Your task to perform on an android device: change the clock style Image 0: 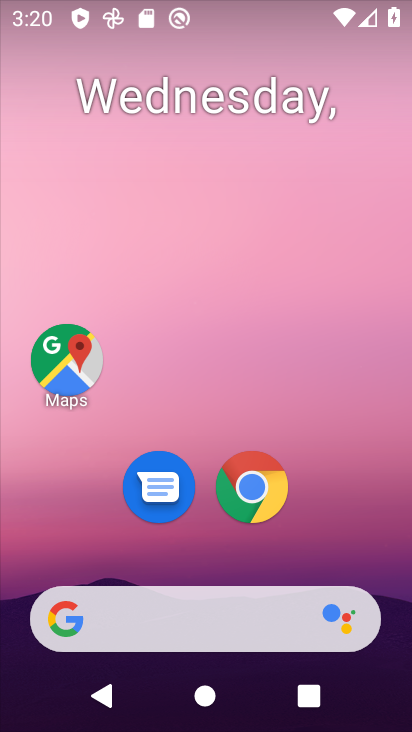
Step 0: drag from (347, 545) to (354, 246)
Your task to perform on an android device: change the clock style Image 1: 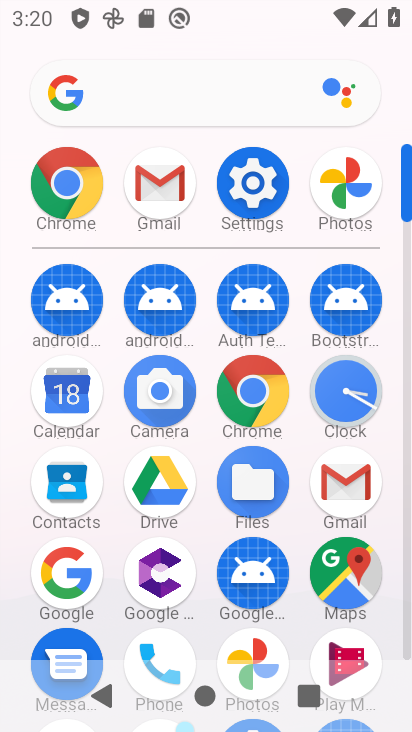
Step 1: click (353, 395)
Your task to perform on an android device: change the clock style Image 2: 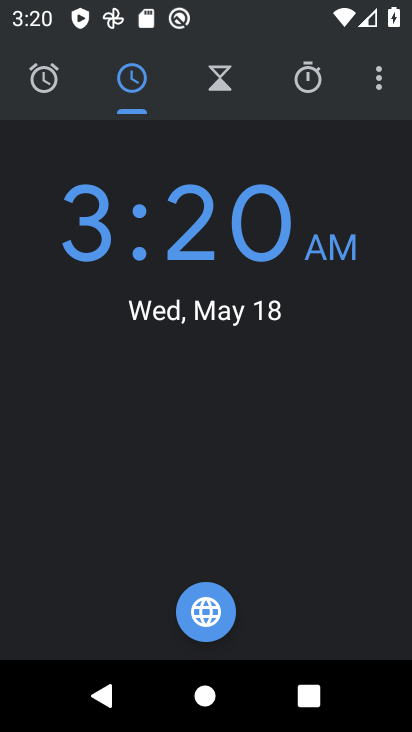
Step 2: click (380, 92)
Your task to perform on an android device: change the clock style Image 3: 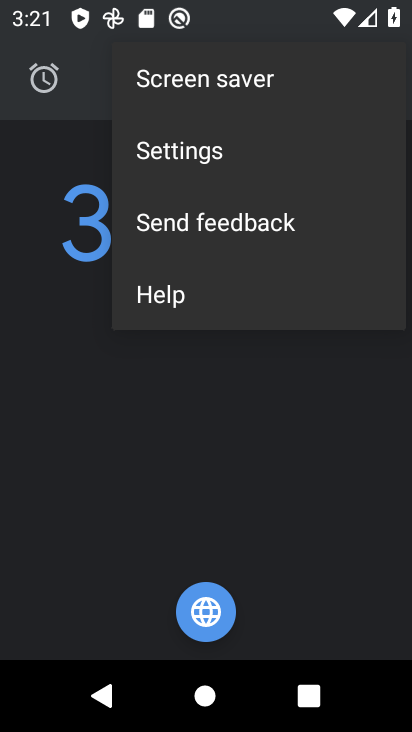
Step 3: click (222, 153)
Your task to perform on an android device: change the clock style Image 4: 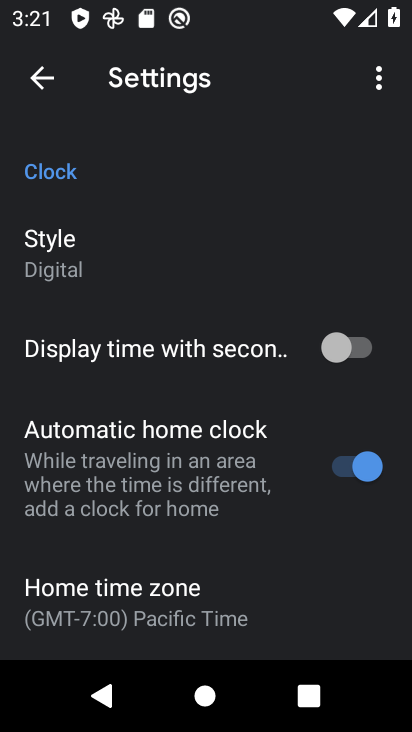
Step 4: drag from (310, 473) to (292, 314)
Your task to perform on an android device: change the clock style Image 5: 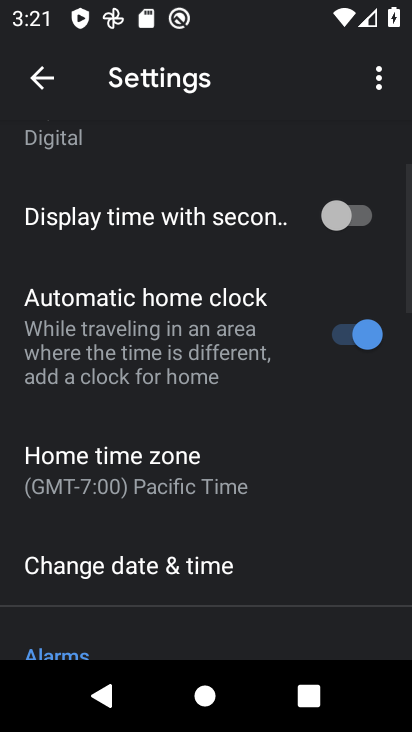
Step 5: drag from (289, 491) to (283, 359)
Your task to perform on an android device: change the clock style Image 6: 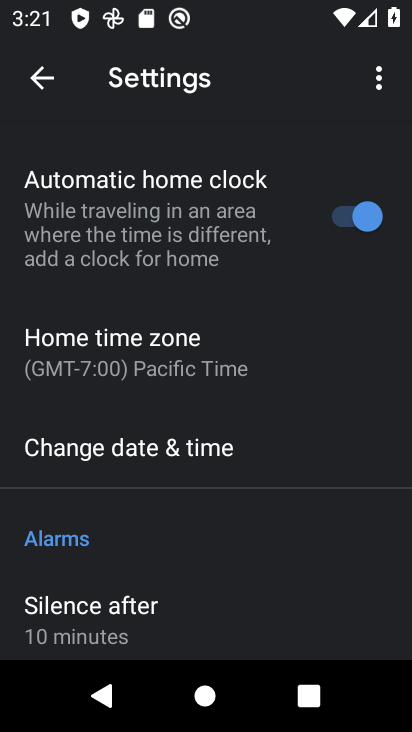
Step 6: drag from (283, 512) to (290, 381)
Your task to perform on an android device: change the clock style Image 7: 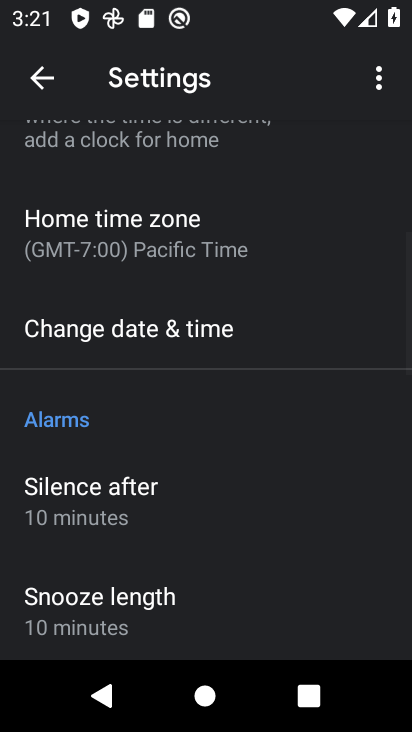
Step 7: drag from (282, 514) to (285, 372)
Your task to perform on an android device: change the clock style Image 8: 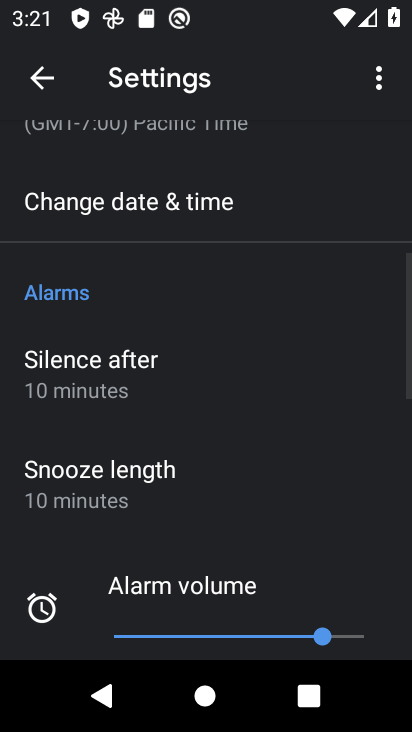
Step 8: drag from (275, 511) to (273, 401)
Your task to perform on an android device: change the clock style Image 9: 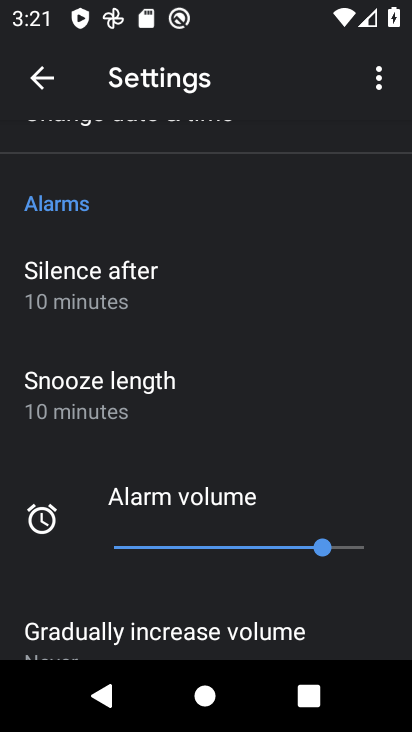
Step 9: drag from (283, 450) to (309, 337)
Your task to perform on an android device: change the clock style Image 10: 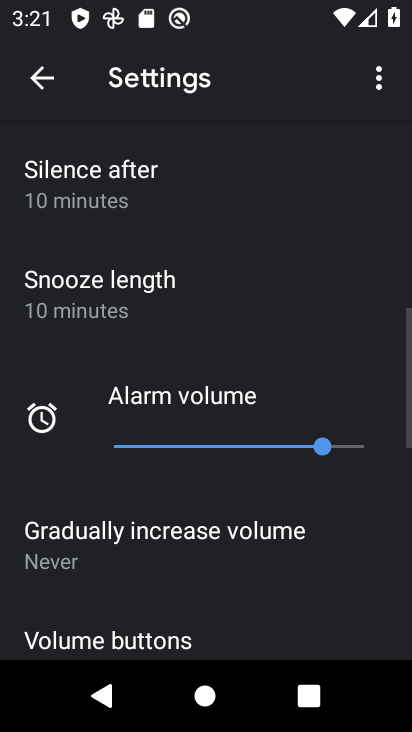
Step 10: drag from (334, 581) to (350, 460)
Your task to perform on an android device: change the clock style Image 11: 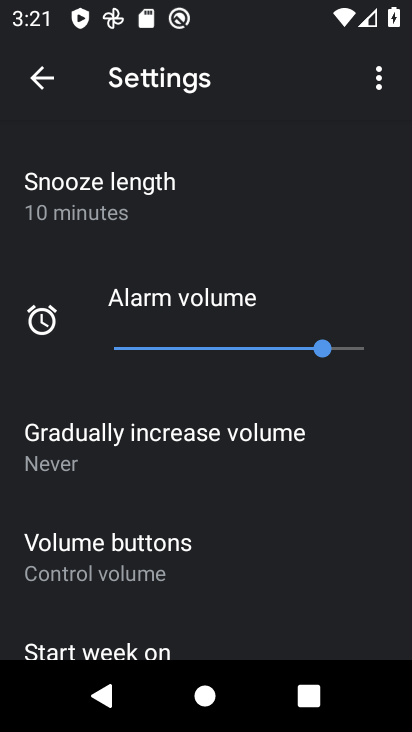
Step 11: drag from (355, 592) to (365, 472)
Your task to perform on an android device: change the clock style Image 12: 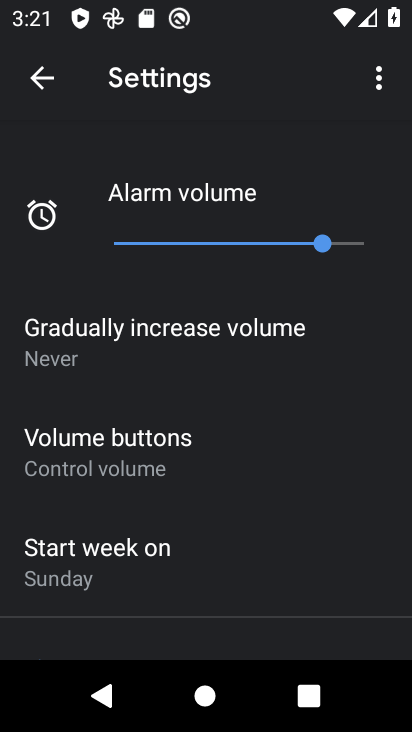
Step 12: drag from (327, 574) to (327, 456)
Your task to perform on an android device: change the clock style Image 13: 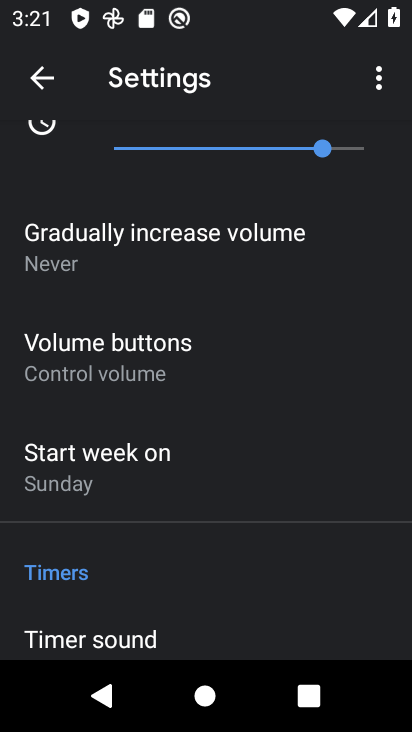
Step 13: drag from (325, 564) to (326, 486)
Your task to perform on an android device: change the clock style Image 14: 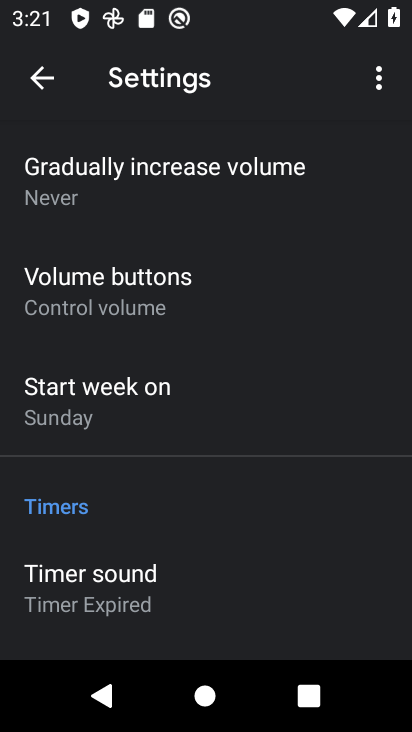
Step 14: drag from (325, 585) to (307, 468)
Your task to perform on an android device: change the clock style Image 15: 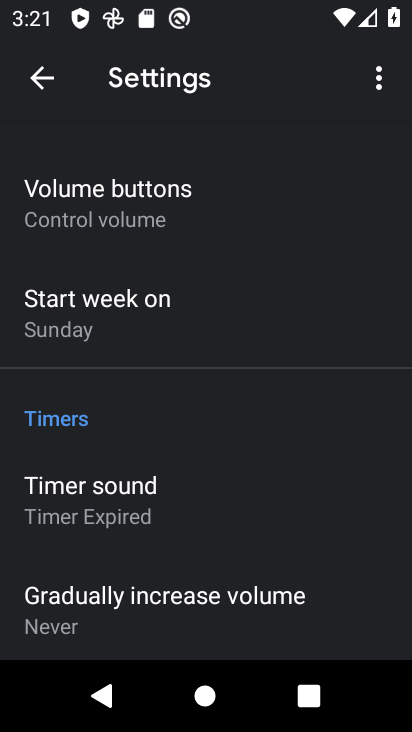
Step 15: drag from (303, 589) to (301, 479)
Your task to perform on an android device: change the clock style Image 16: 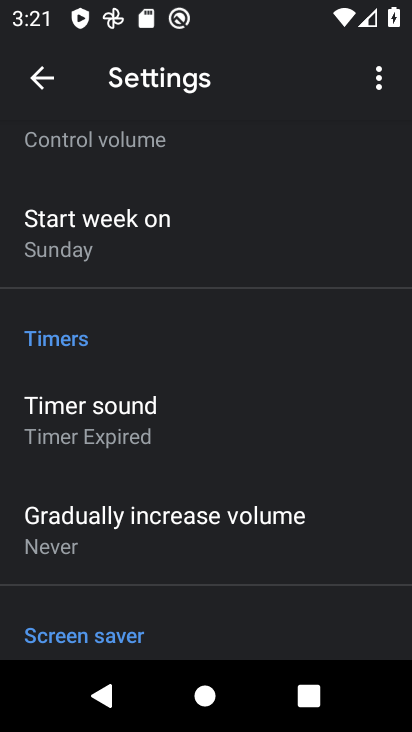
Step 16: drag from (314, 593) to (315, 449)
Your task to perform on an android device: change the clock style Image 17: 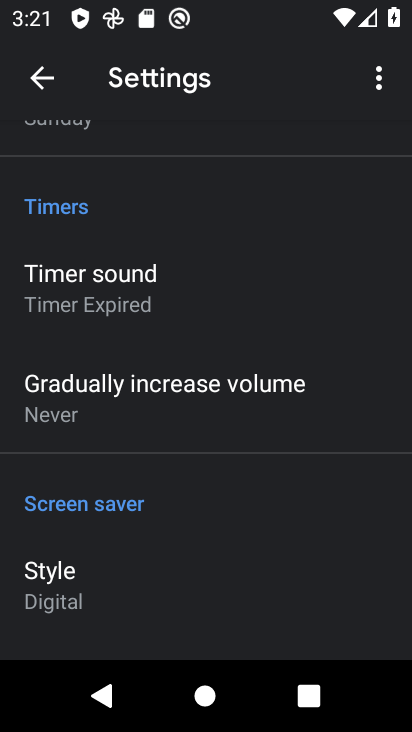
Step 17: drag from (298, 597) to (287, 476)
Your task to perform on an android device: change the clock style Image 18: 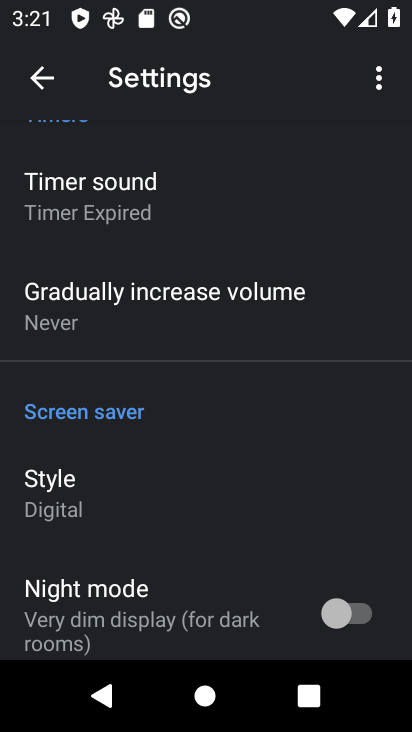
Step 18: drag from (271, 607) to (270, 396)
Your task to perform on an android device: change the clock style Image 19: 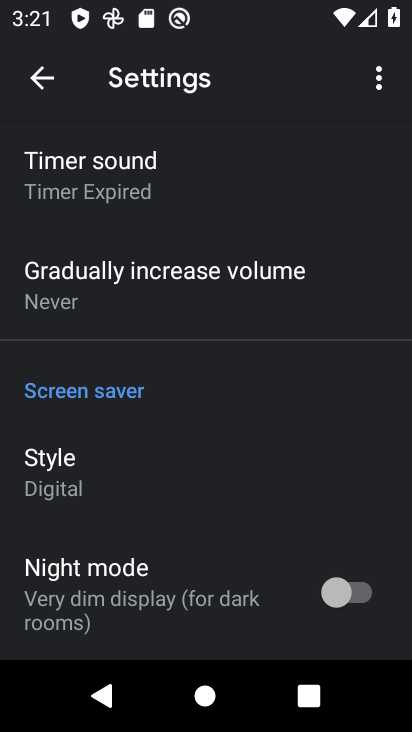
Step 19: drag from (292, 218) to (274, 389)
Your task to perform on an android device: change the clock style Image 20: 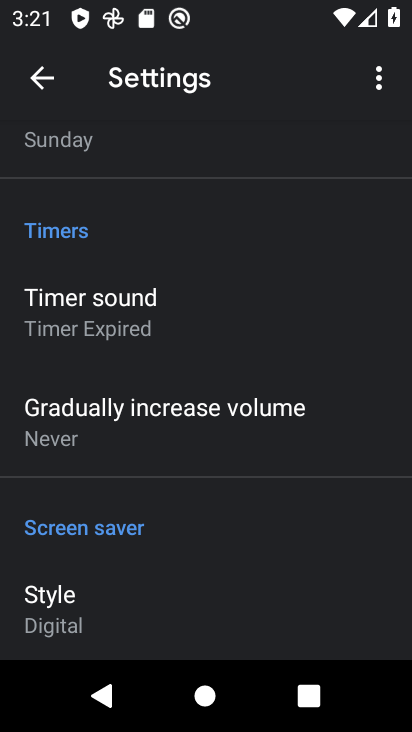
Step 20: drag from (270, 273) to (261, 425)
Your task to perform on an android device: change the clock style Image 21: 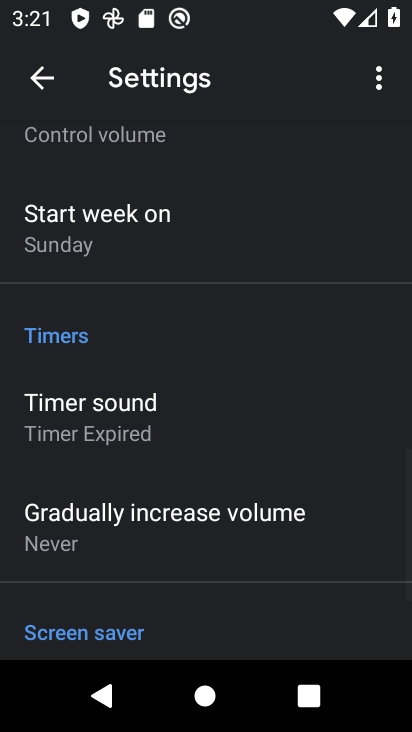
Step 21: drag from (260, 263) to (251, 427)
Your task to perform on an android device: change the clock style Image 22: 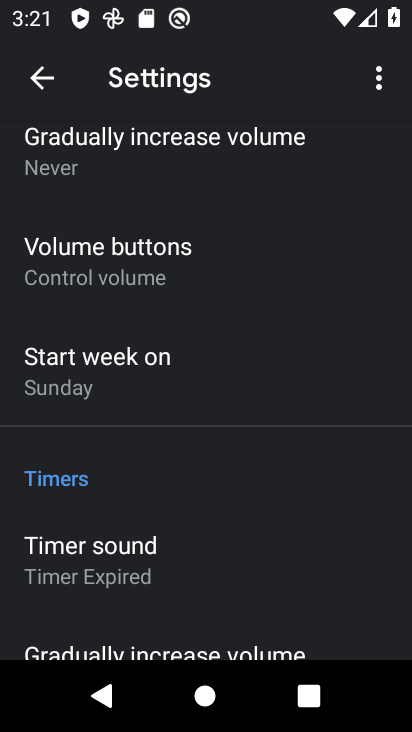
Step 22: drag from (257, 268) to (260, 428)
Your task to perform on an android device: change the clock style Image 23: 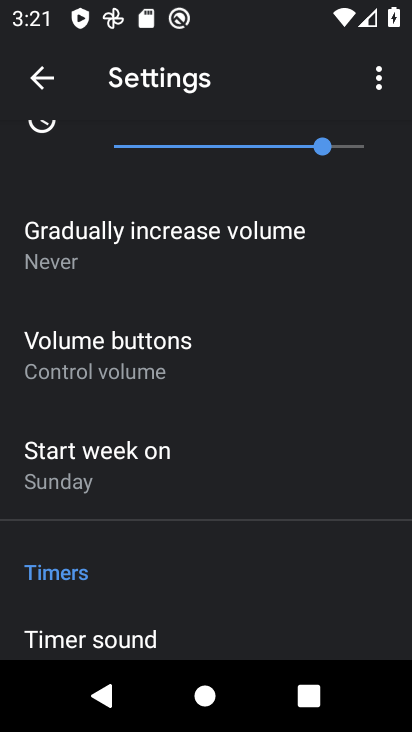
Step 23: drag from (284, 186) to (286, 322)
Your task to perform on an android device: change the clock style Image 24: 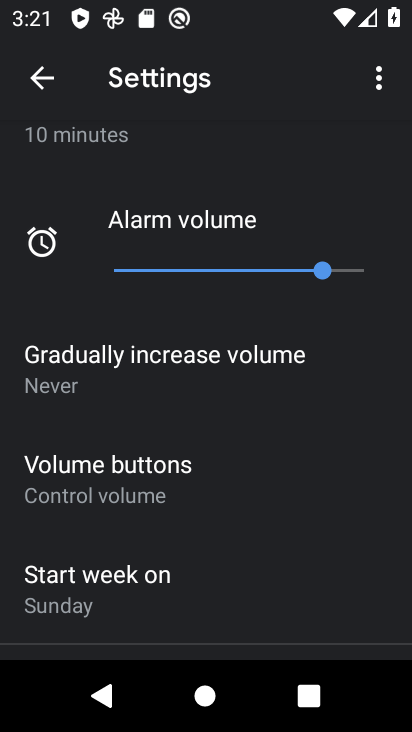
Step 24: drag from (306, 160) to (300, 286)
Your task to perform on an android device: change the clock style Image 25: 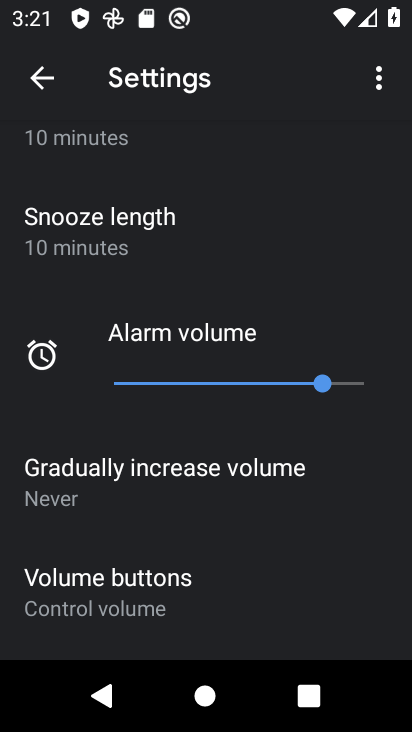
Step 25: drag from (294, 158) to (283, 279)
Your task to perform on an android device: change the clock style Image 26: 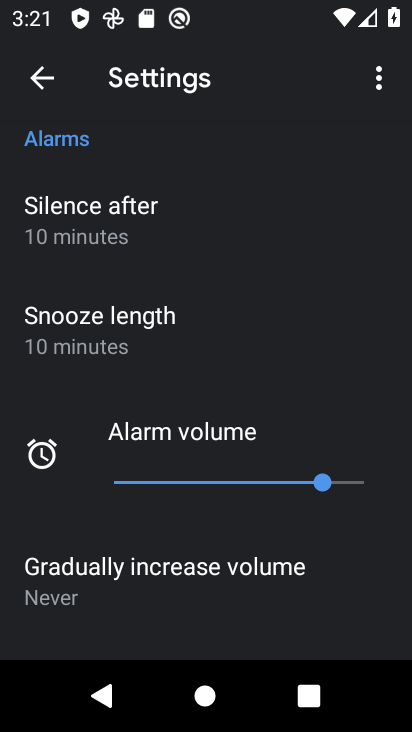
Step 26: drag from (291, 166) to (280, 309)
Your task to perform on an android device: change the clock style Image 27: 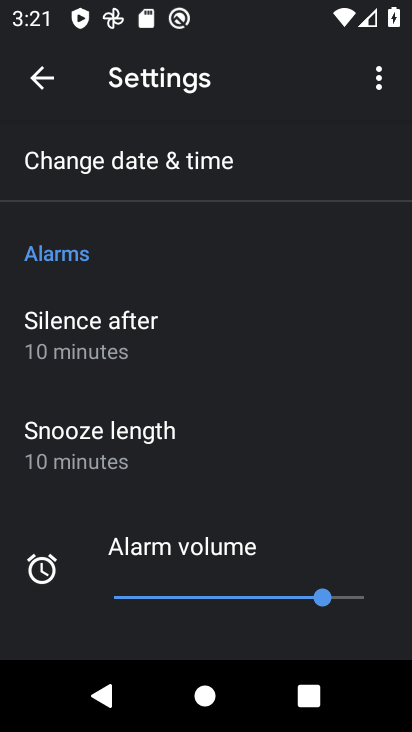
Step 27: drag from (273, 176) to (273, 303)
Your task to perform on an android device: change the clock style Image 28: 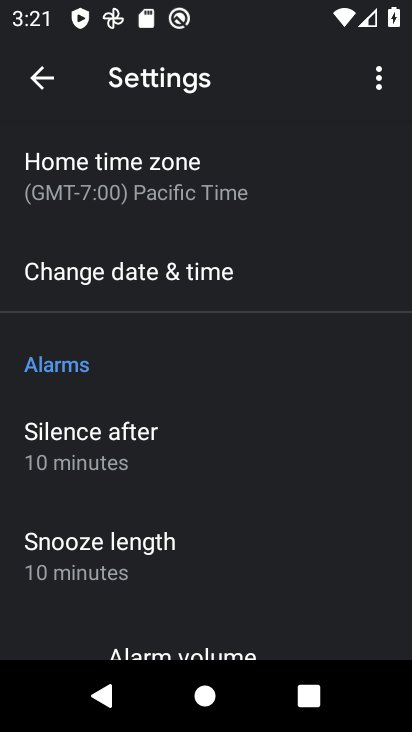
Step 28: drag from (271, 154) to (274, 267)
Your task to perform on an android device: change the clock style Image 29: 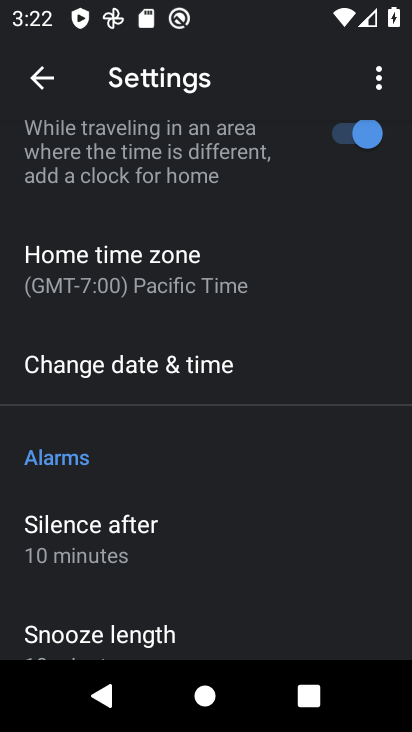
Step 29: drag from (285, 196) to (290, 301)
Your task to perform on an android device: change the clock style Image 30: 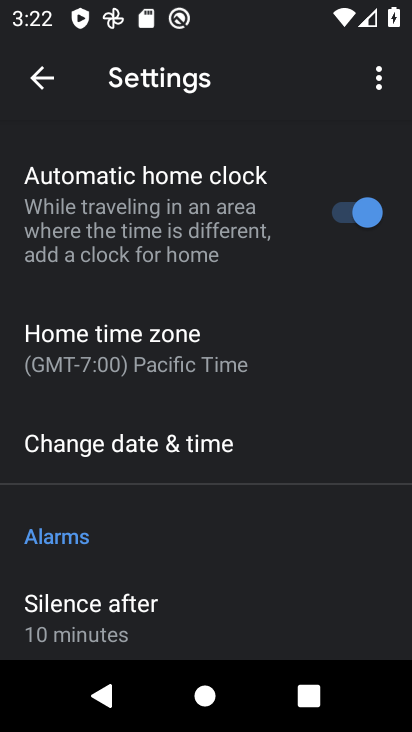
Step 30: drag from (295, 144) to (273, 272)
Your task to perform on an android device: change the clock style Image 31: 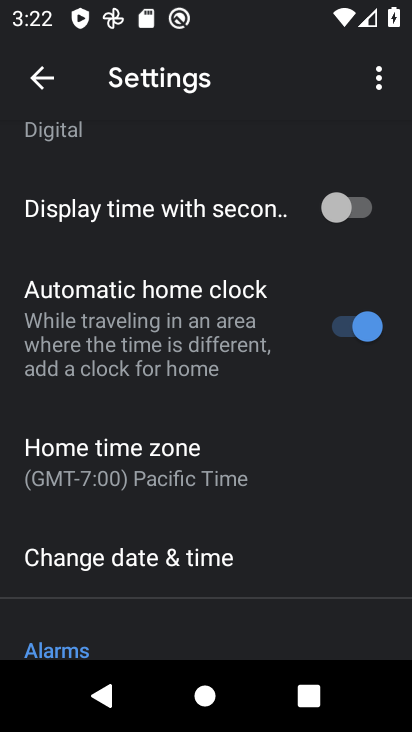
Step 31: drag from (270, 137) to (274, 259)
Your task to perform on an android device: change the clock style Image 32: 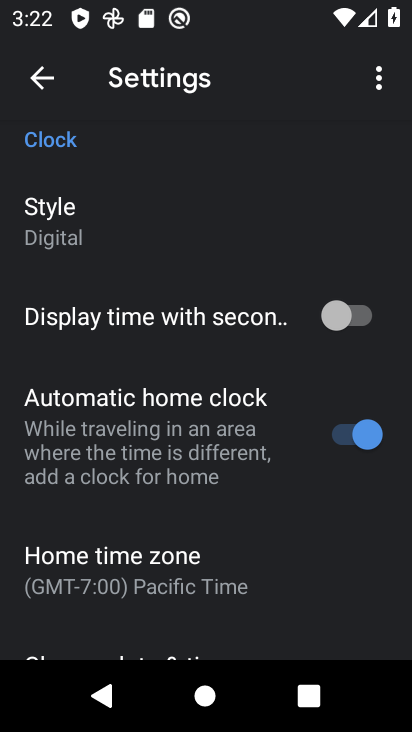
Step 32: drag from (268, 175) to (252, 277)
Your task to perform on an android device: change the clock style Image 33: 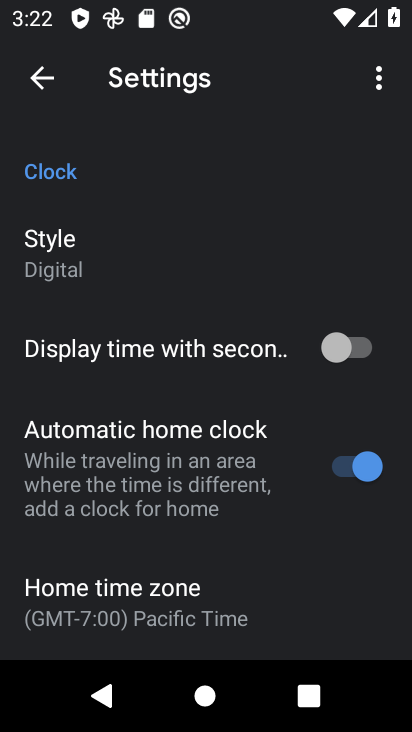
Step 33: click (86, 257)
Your task to perform on an android device: change the clock style Image 34: 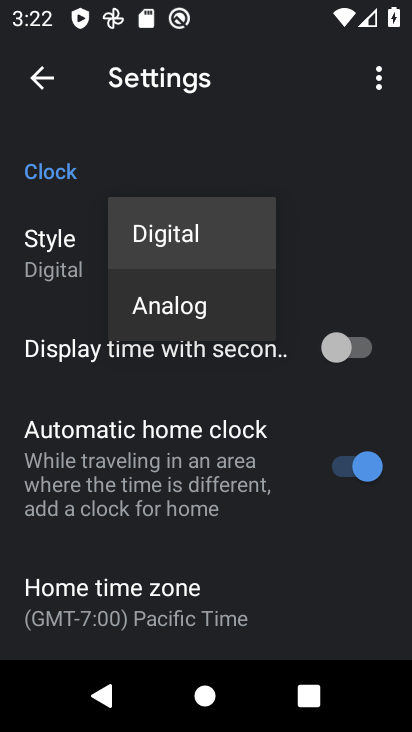
Step 34: click (169, 302)
Your task to perform on an android device: change the clock style Image 35: 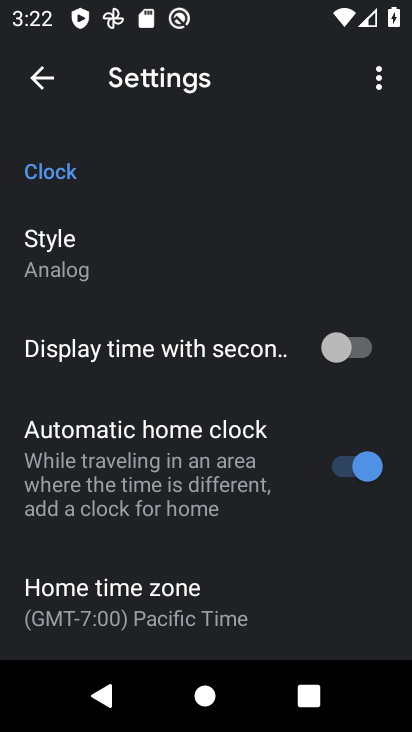
Step 35: task complete